Your task to perform on an android device: Open notification settings Image 0: 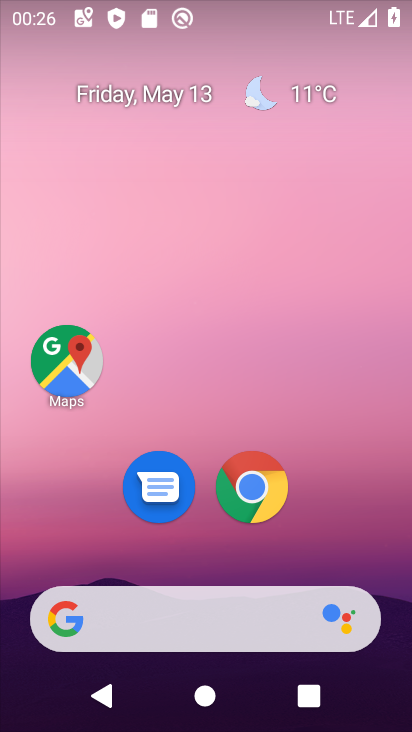
Step 0: drag from (202, 557) to (182, 67)
Your task to perform on an android device: Open notification settings Image 1: 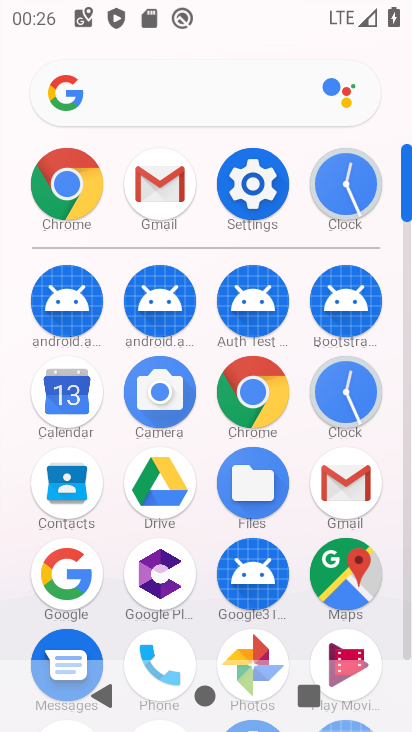
Step 1: click (252, 197)
Your task to perform on an android device: Open notification settings Image 2: 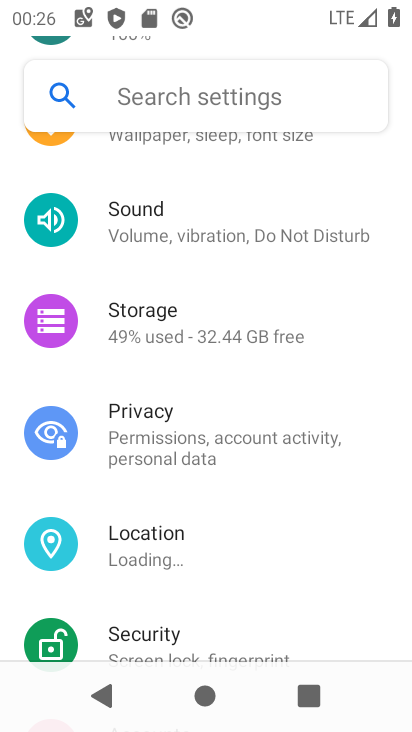
Step 2: drag from (170, 210) to (225, 544)
Your task to perform on an android device: Open notification settings Image 3: 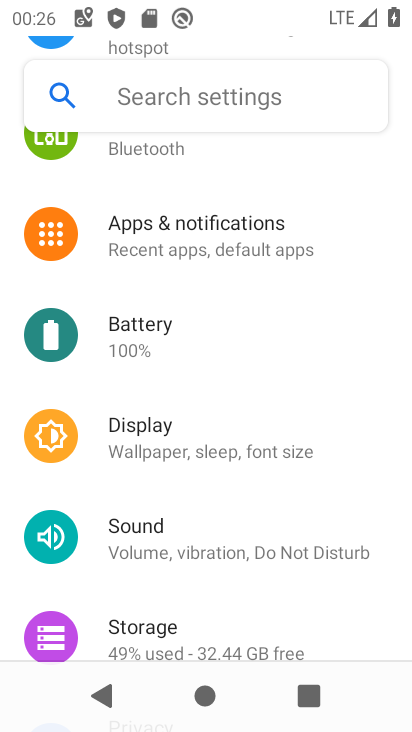
Step 3: click (160, 249)
Your task to perform on an android device: Open notification settings Image 4: 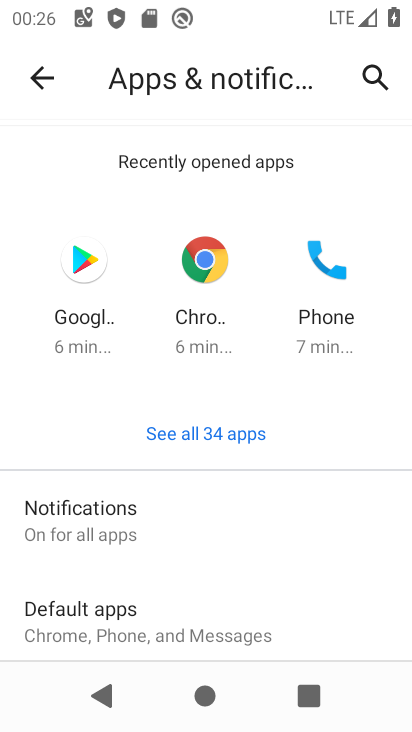
Step 4: task complete